Your task to perform on an android device: Open network settings Image 0: 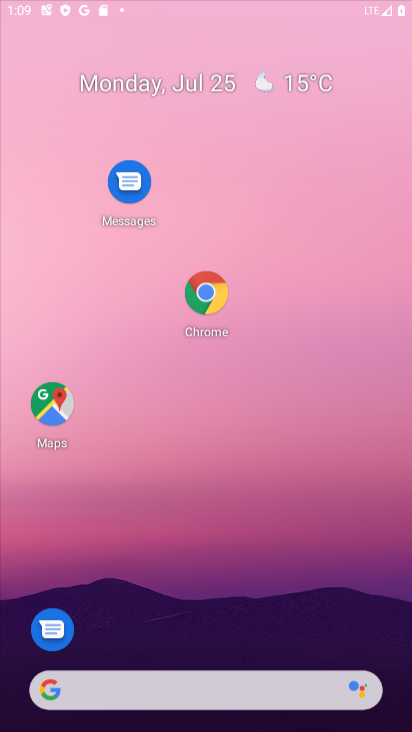
Step 0: press home button
Your task to perform on an android device: Open network settings Image 1: 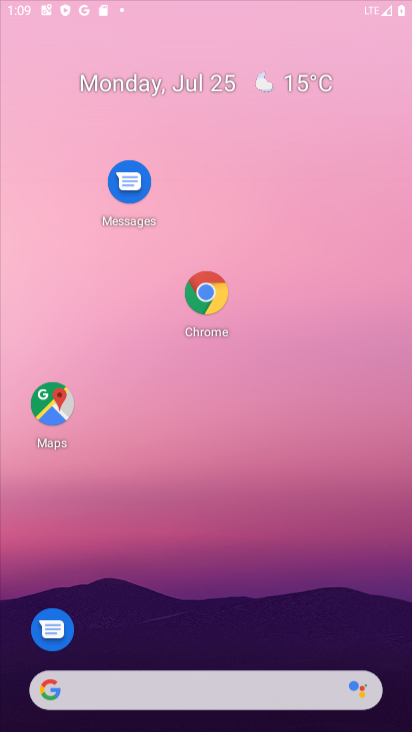
Step 1: click (245, 148)
Your task to perform on an android device: Open network settings Image 2: 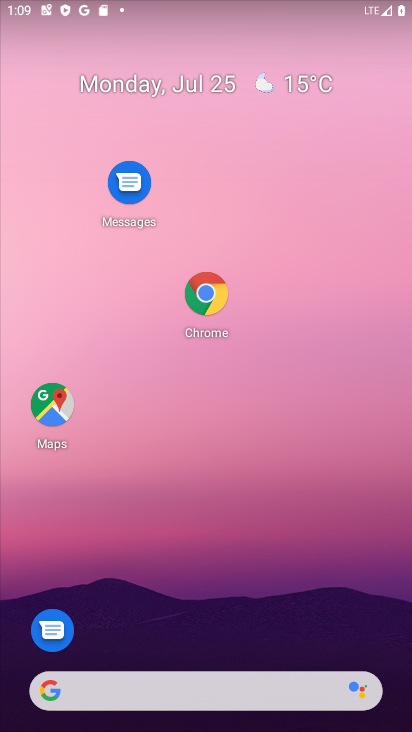
Step 2: drag from (277, 655) to (328, 168)
Your task to perform on an android device: Open network settings Image 3: 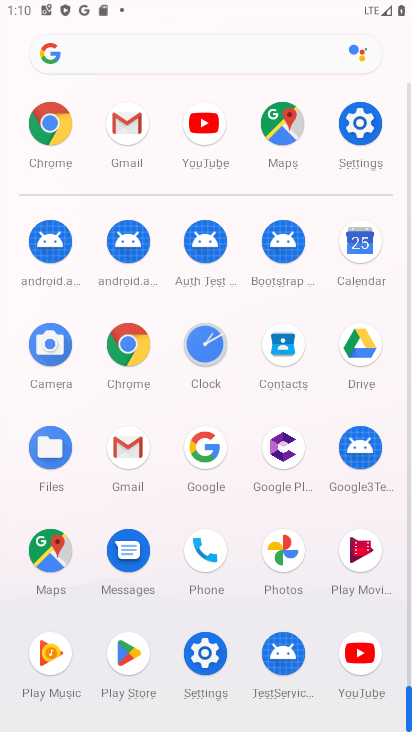
Step 3: click (185, 636)
Your task to perform on an android device: Open network settings Image 4: 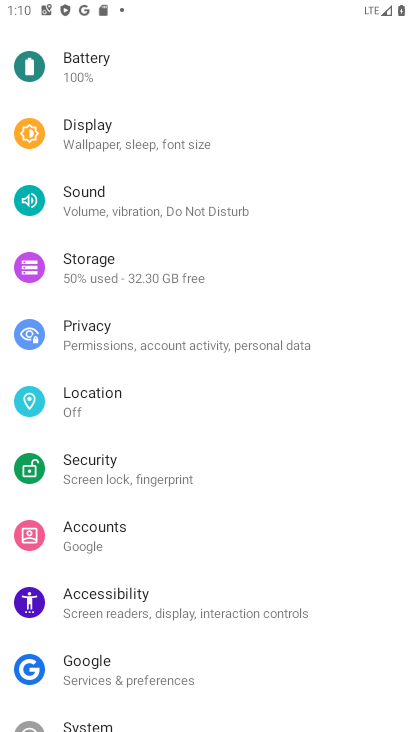
Step 4: drag from (129, 104) to (201, 720)
Your task to perform on an android device: Open network settings Image 5: 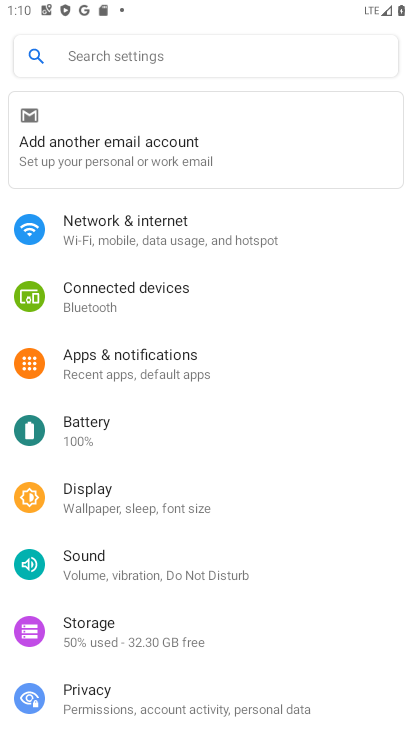
Step 5: click (94, 238)
Your task to perform on an android device: Open network settings Image 6: 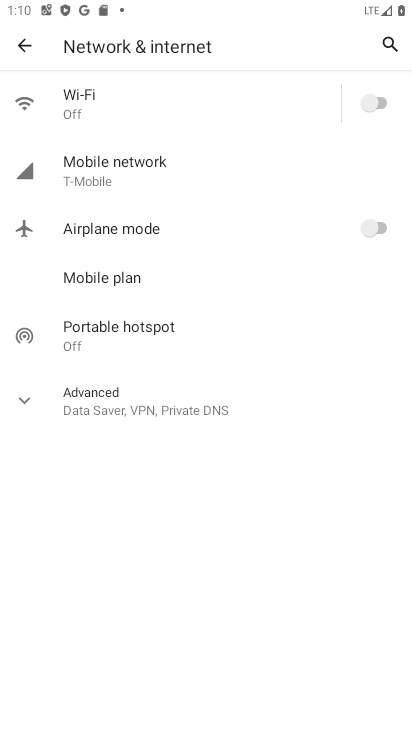
Step 6: task complete